Your task to perform on an android device: Open Google Chrome and click the shortcut for Amazon.com Image 0: 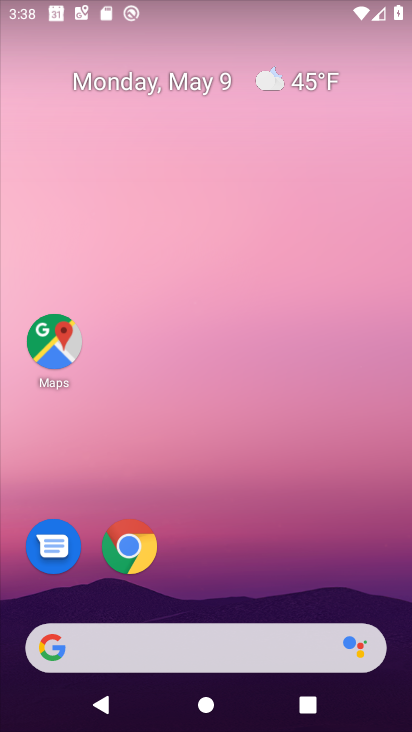
Step 0: click (133, 570)
Your task to perform on an android device: Open Google Chrome and click the shortcut for Amazon.com Image 1: 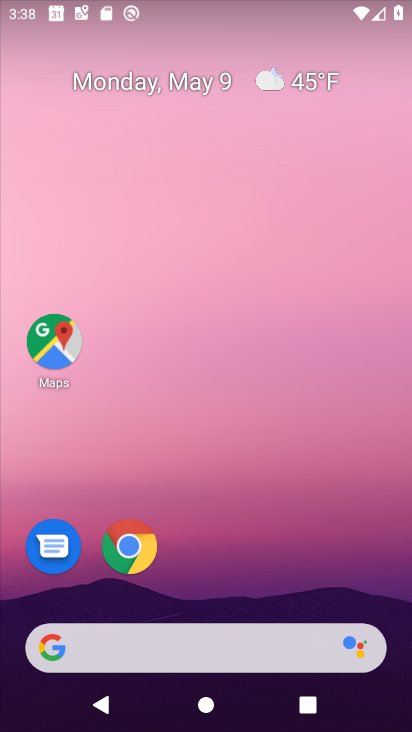
Step 1: click (133, 570)
Your task to perform on an android device: Open Google Chrome and click the shortcut for Amazon.com Image 2: 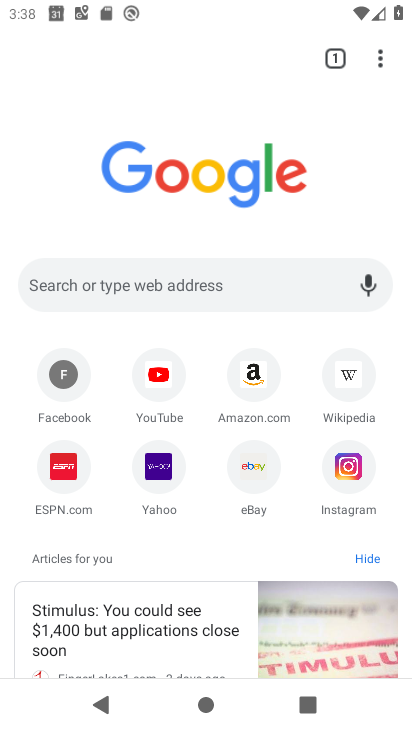
Step 2: click (252, 399)
Your task to perform on an android device: Open Google Chrome and click the shortcut for Amazon.com Image 3: 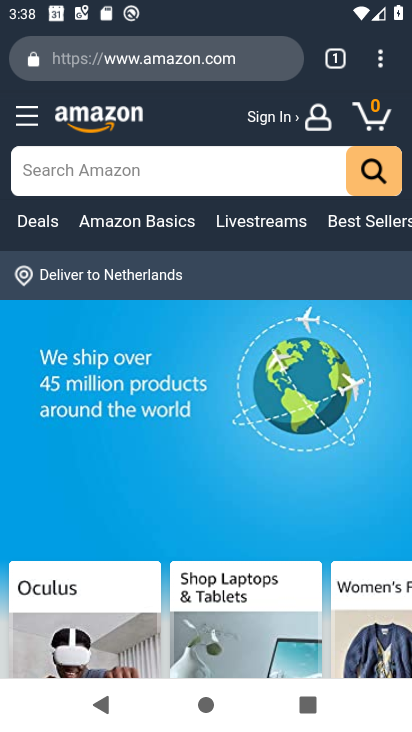
Step 3: task complete